Your task to perform on an android device: Go to Reddit.com Image 0: 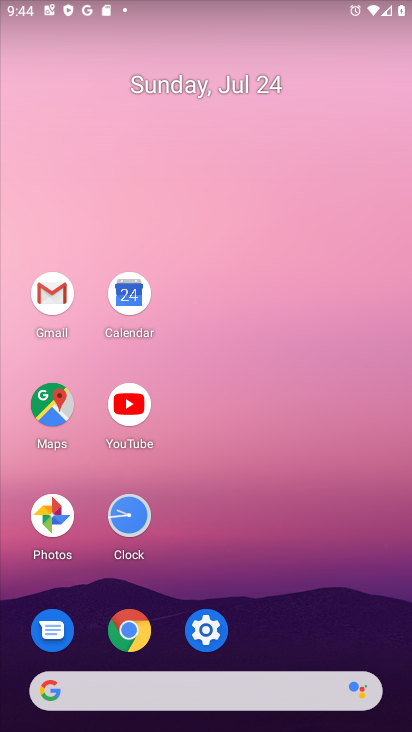
Step 0: click (133, 635)
Your task to perform on an android device: Go to Reddit.com Image 1: 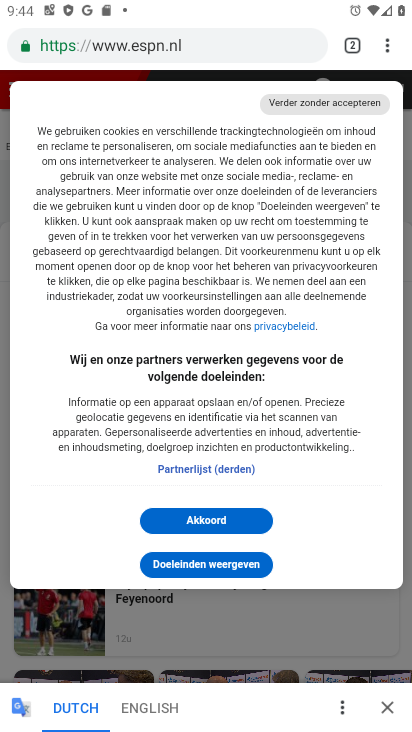
Step 1: click (207, 520)
Your task to perform on an android device: Go to Reddit.com Image 2: 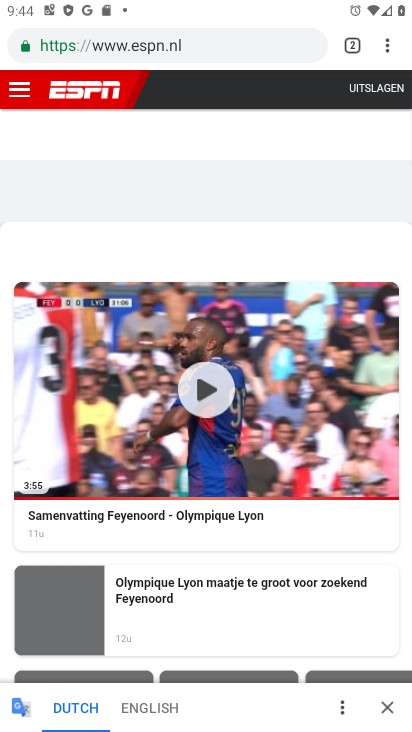
Step 2: click (388, 45)
Your task to perform on an android device: Go to Reddit.com Image 3: 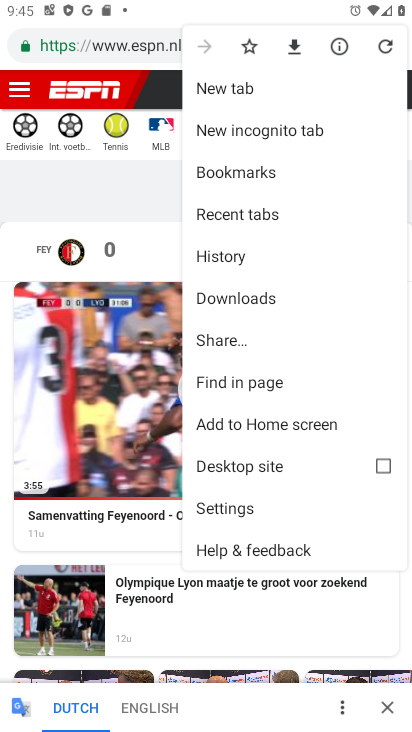
Step 3: click (229, 87)
Your task to perform on an android device: Go to Reddit.com Image 4: 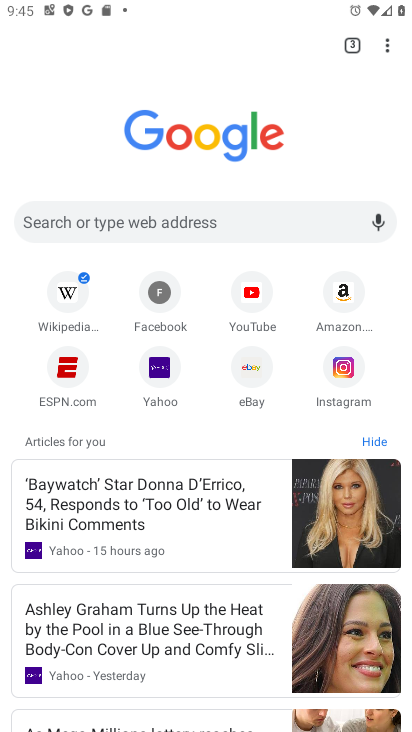
Step 4: click (155, 226)
Your task to perform on an android device: Go to Reddit.com Image 5: 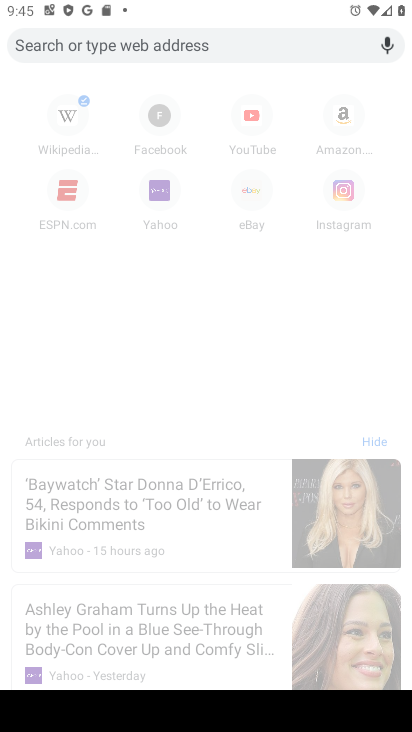
Step 5: type "reddit.com"
Your task to perform on an android device: Go to Reddit.com Image 6: 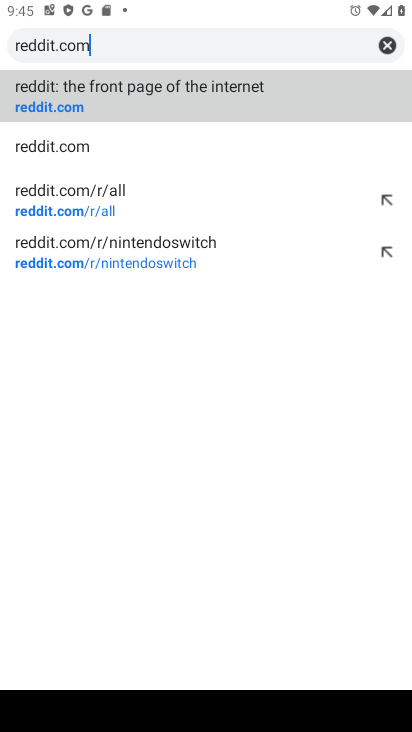
Step 6: click (47, 95)
Your task to perform on an android device: Go to Reddit.com Image 7: 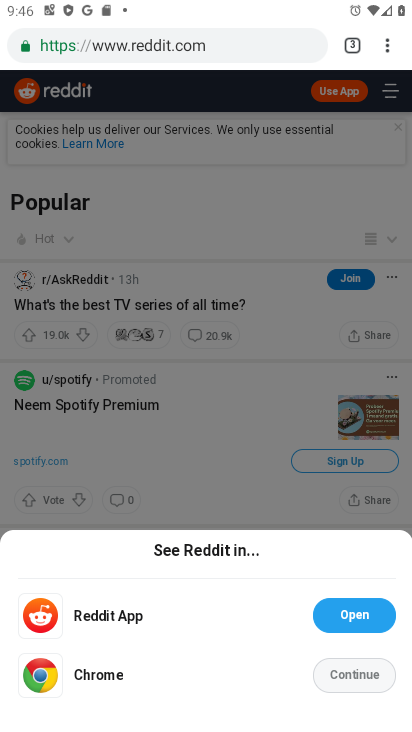
Step 7: click (335, 617)
Your task to perform on an android device: Go to Reddit.com Image 8: 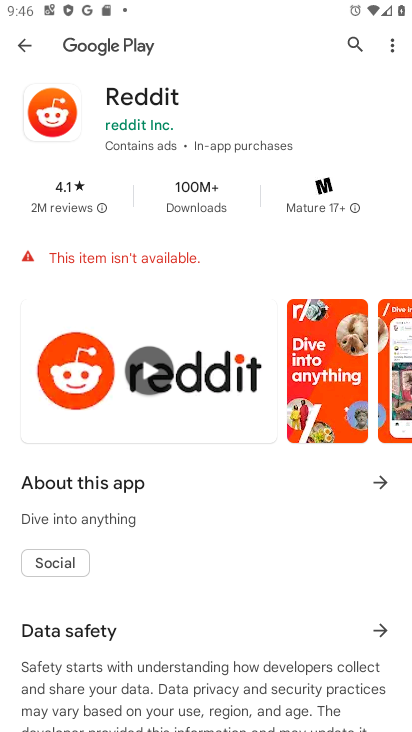
Step 8: task complete